Your task to perform on an android device: Open Youtube and go to "Your channel" Image 0: 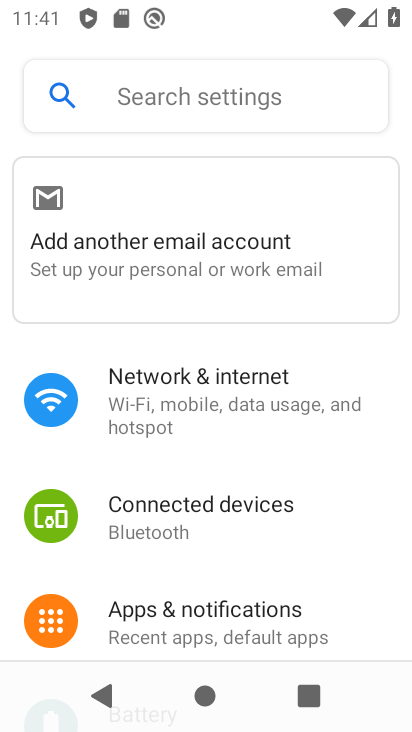
Step 0: press home button
Your task to perform on an android device: Open Youtube and go to "Your channel" Image 1: 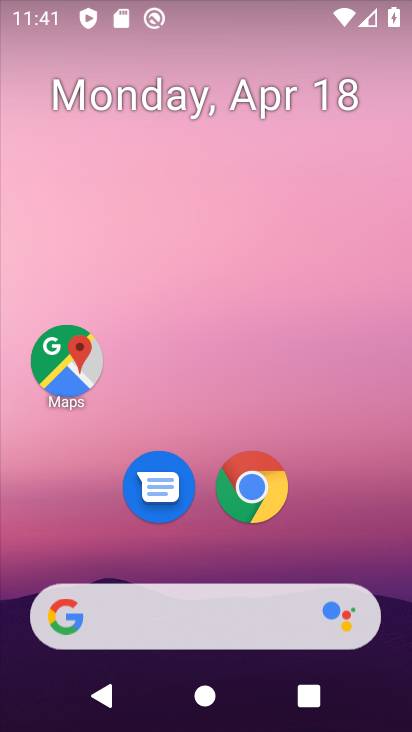
Step 1: drag from (310, 553) to (317, 110)
Your task to perform on an android device: Open Youtube and go to "Your channel" Image 2: 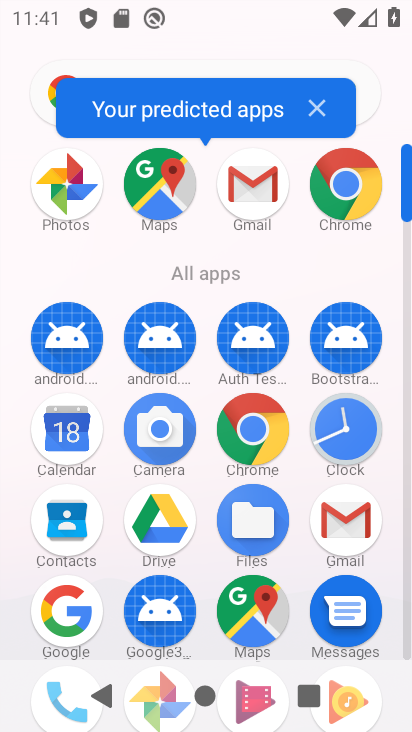
Step 2: drag from (299, 300) to (276, 23)
Your task to perform on an android device: Open Youtube and go to "Your channel" Image 3: 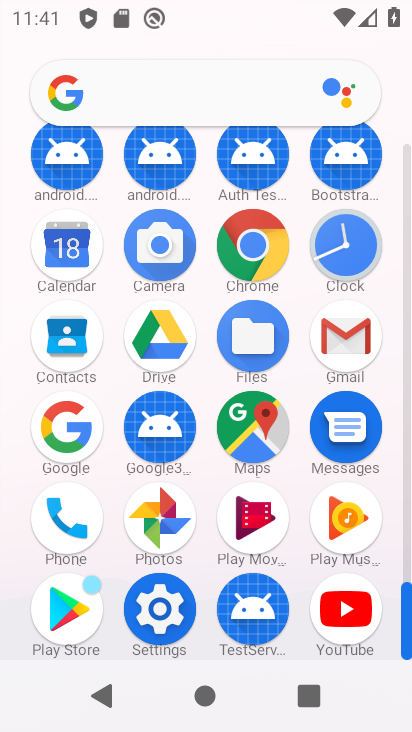
Step 3: click (328, 600)
Your task to perform on an android device: Open Youtube and go to "Your channel" Image 4: 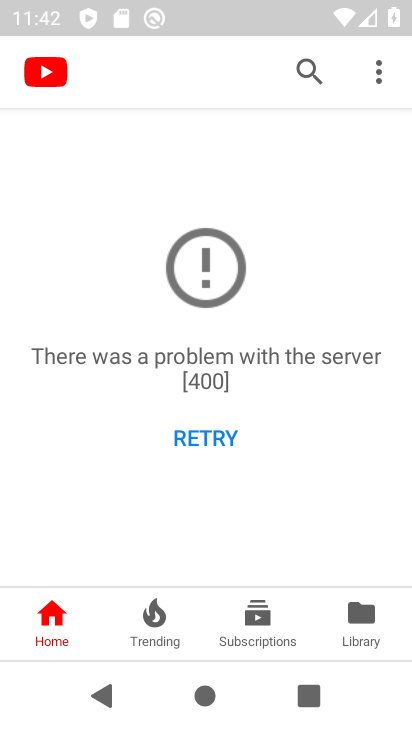
Step 4: click (55, 61)
Your task to perform on an android device: Open Youtube and go to "Your channel" Image 5: 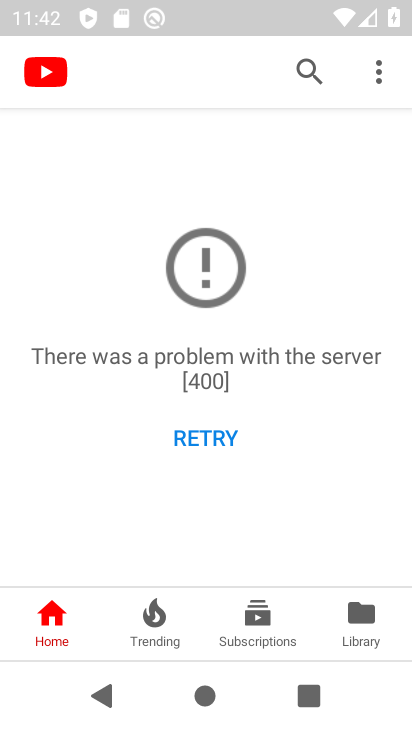
Step 5: click (368, 616)
Your task to perform on an android device: Open Youtube and go to "Your channel" Image 6: 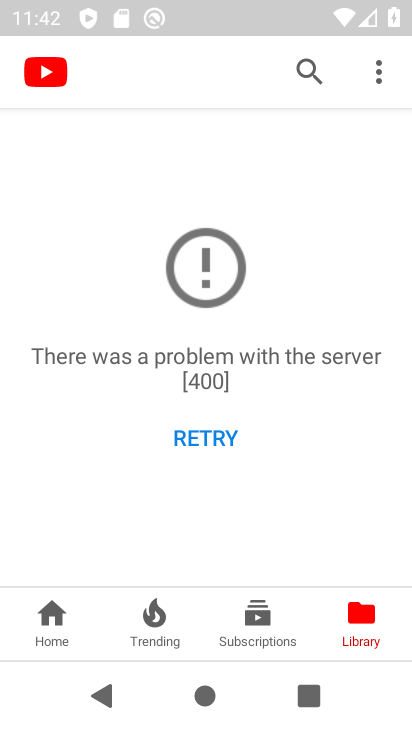
Step 6: click (245, 604)
Your task to perform on an android device: Open Youtube and go to "Your channel" Image 7: 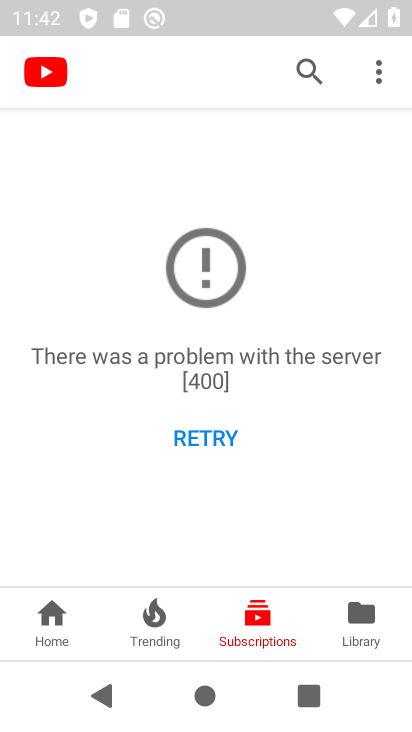
Step 7: task complete